Your task to perform on an android device: Check out the new ikea catalog. Image 0: 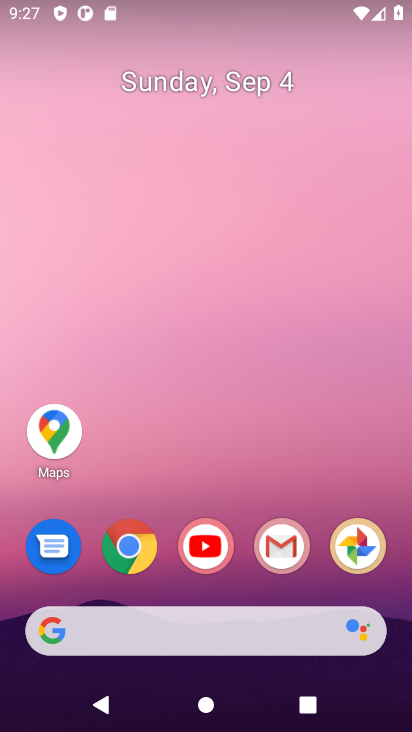
Step 0: click (131, 552)
Your task to perform on an android device: Check out the new ikea catalog. Image 1: 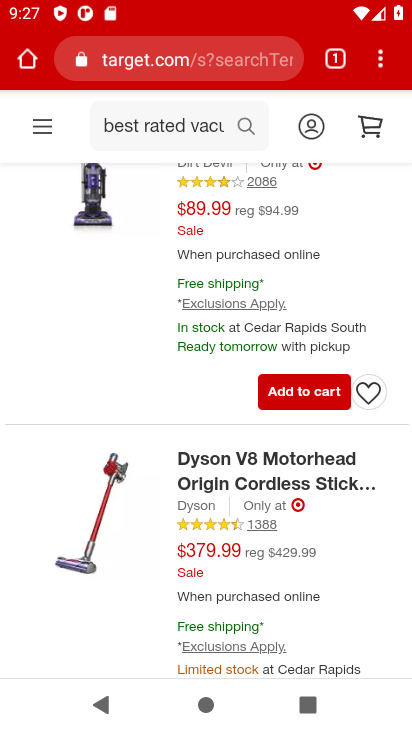
Step 1: click (183, 65)
Your task to perform on an android device: Check out the new ikea catalog. Image 2: 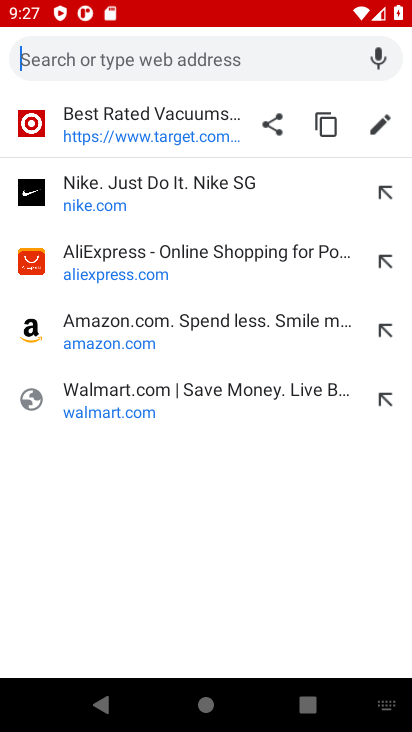
Step 2: type "new ikea catalog"
Your task to perform on an android device: Check out the new ikea catalog. Image 3: 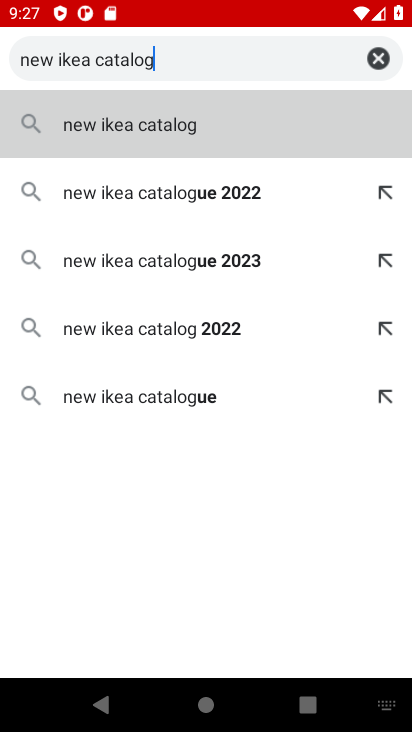
Step 3: click (139, 133)
Your task to perform on an android device: Check out the new ikea catalog. Image 4: 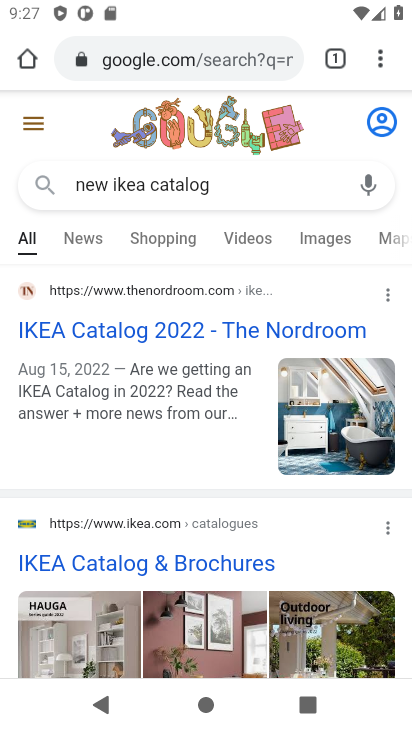
Step 4: task complete